Your task to perform on an android device: Show me the alarms in the clock app Image 0: 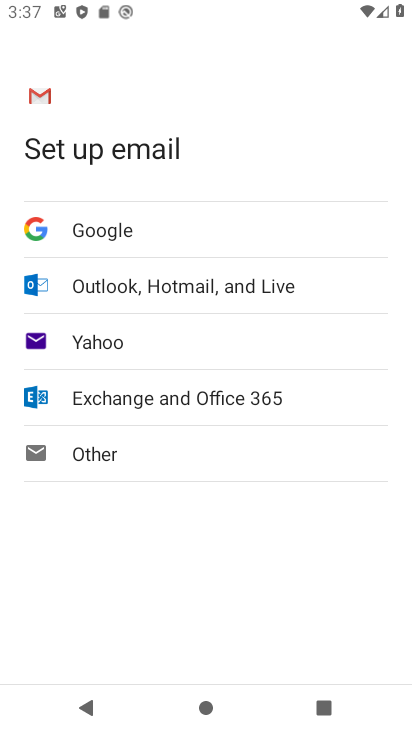
Step 0: press home button
Your task to perform on an android device: Show me the alarms in the clock app Image 1: 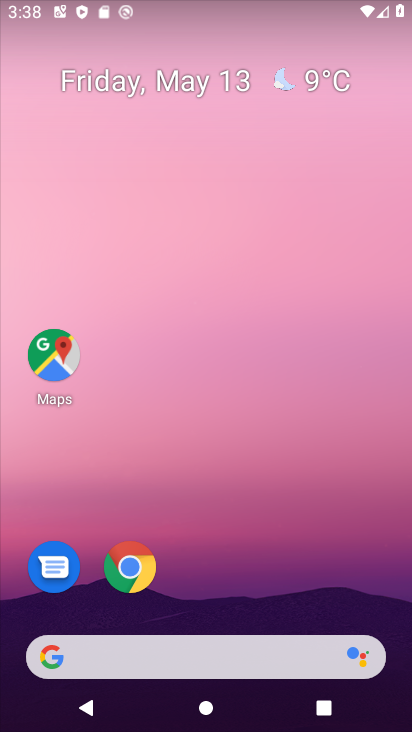
Step 1: drag from (259, 551) to (251, 71)
Your task to perform on an android device: Show me the alarms in the clock app Image 2: 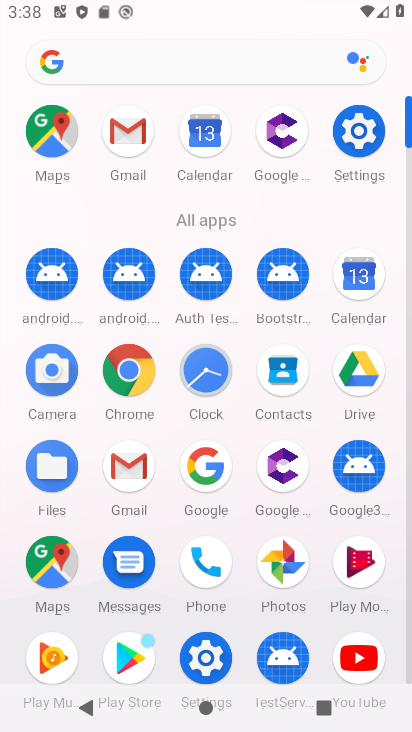
Step 2: click (205, 375)
Your task to perform on an android device: Show me the alarms in the clock app Image 3: 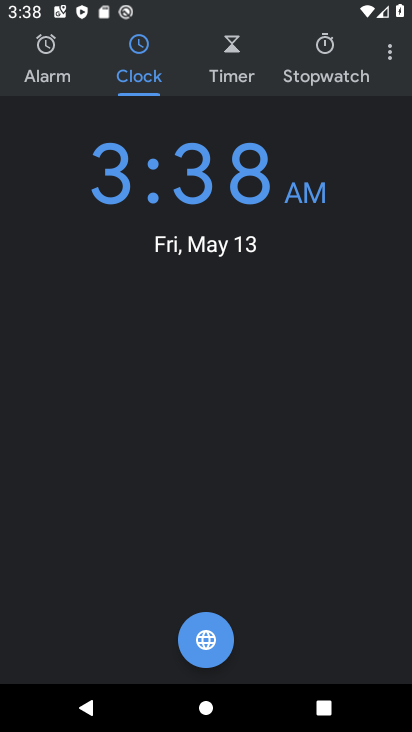
Step 3: click (382, 52)
Your task to perform on an android device: Show me the alarms in the clock app Image 4: 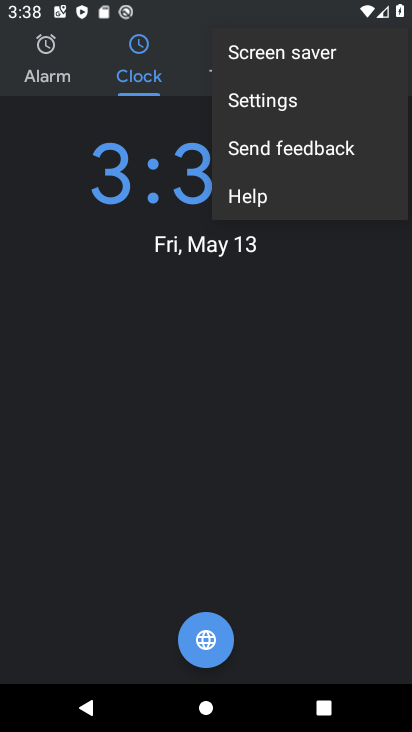
Step 4: click (68, 68)
Your task to perform on an android device: Show me the alarms in the clock app Image 5: 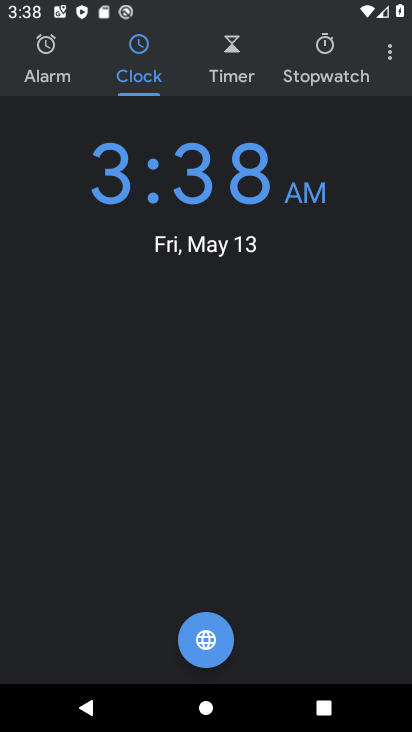
Step 5: click (55, 66)
Your task to perform on an android device: Show me the alarms in the clock app Image 6: 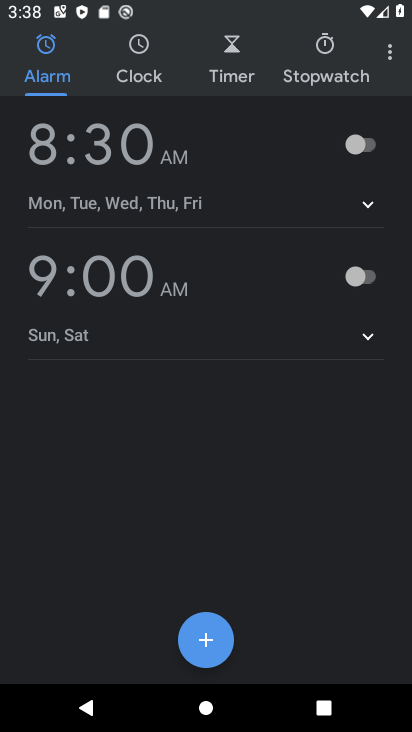
Step 6: task complete